Your task to perform on an android device: What's the weather going to be tomorrow? Image 0: 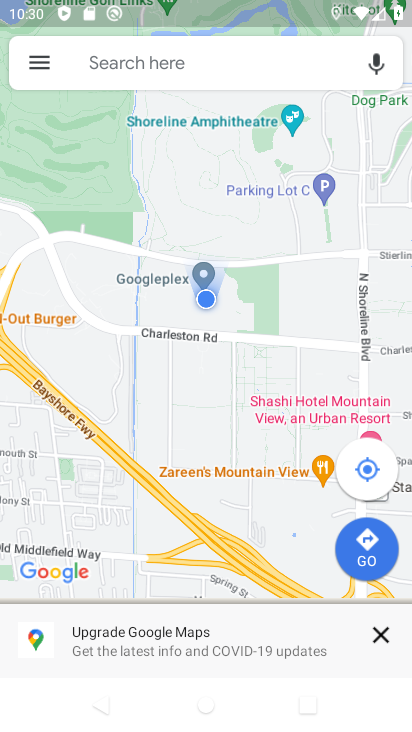
Step 0: press home button
Your task to perform on an android device: What's the weather going to be tomorrow? Image 1: 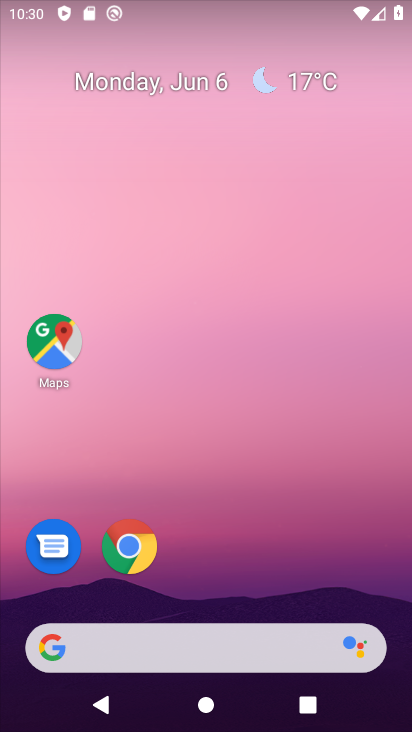
Step 1: click (325, 82)
Your task to perform on an android device: What's the weather going to be tomorrow? Image 2: 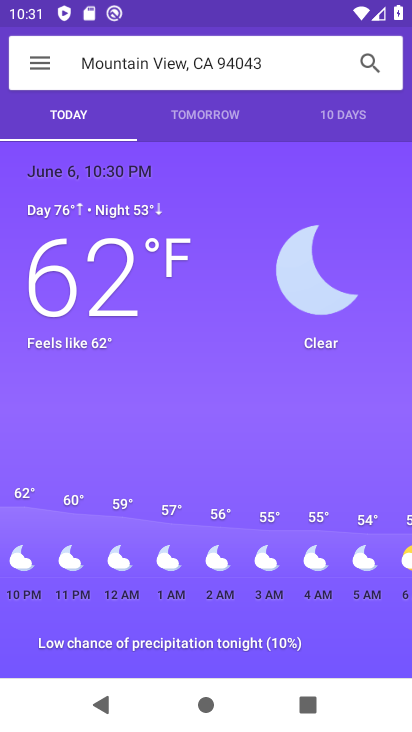
Step 2: click (233, 123)
Your task to perform on an android device: What's the weather going to be tomorrow? Image 3: 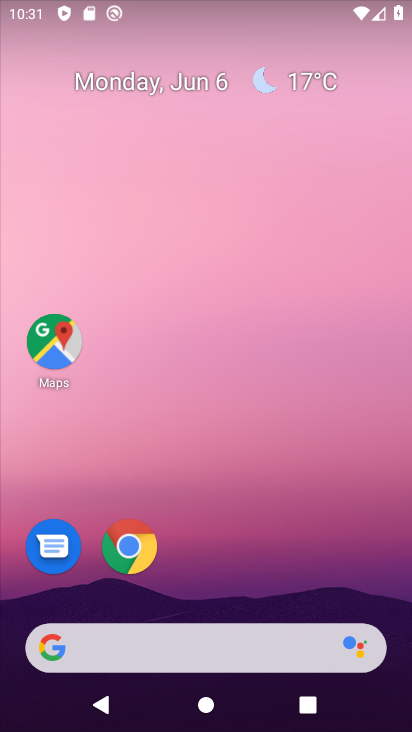
Step 3: click (306, 90)
Your task to perform on an android device: What's the weather going to be tomorrow? Image 4: 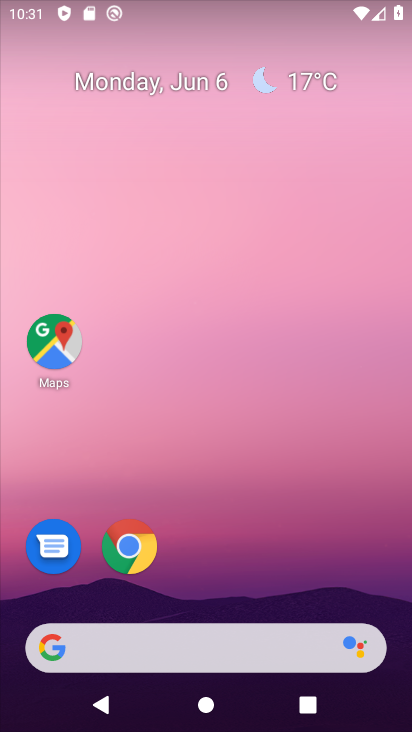
Step 4: click (313, 81)
Your task to perform on an android device: What's the weather going to be tomorrow? Image 5: 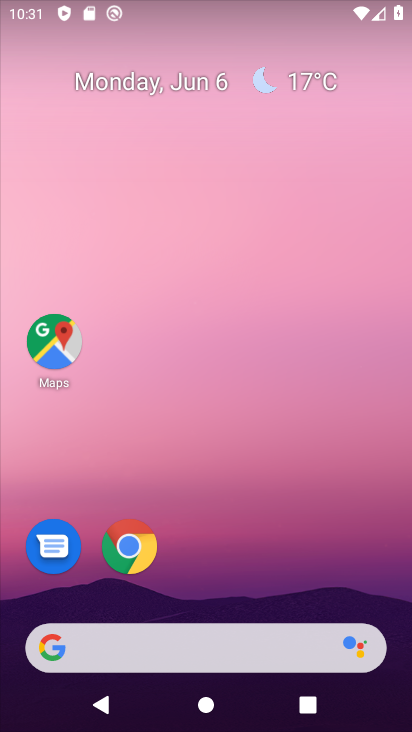
Step 5: click (315, 100)
Your task to perform on an android device: What's the weather going to be tomorrow? Image 6: 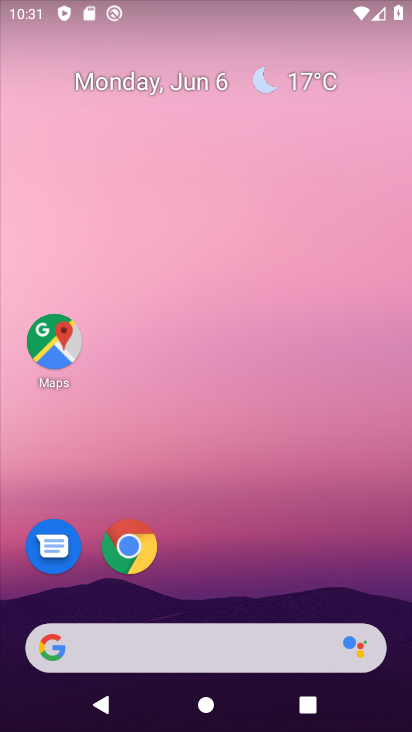
Step 6: drag from (294, 582) to (208, 119)
Your task to perform on an android device: What's the weather going to be tomorrow? Image 7: 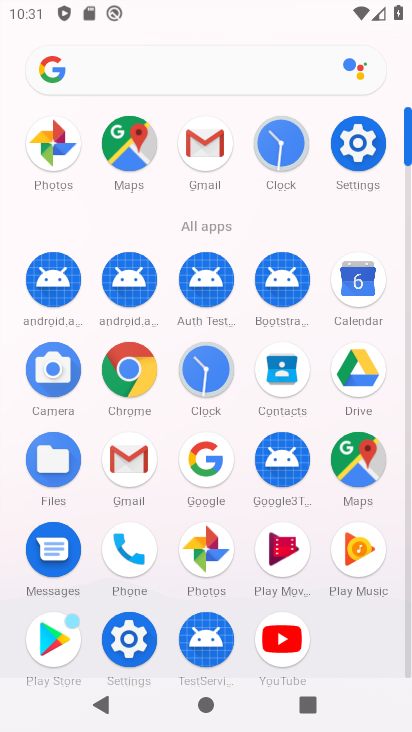
Step 7: press home button
Your task to perform on an android device: What's the weather going to be tomorrow? Image 8: 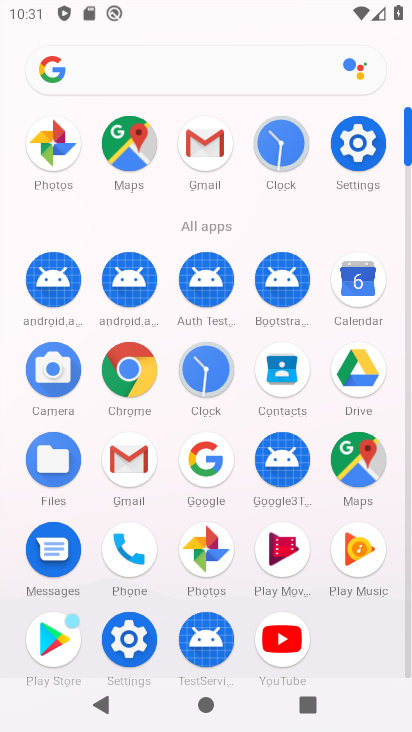
Step 8: press home button
Your task to perform on an android device: What's the weather going to be tomorrow? Image 9: 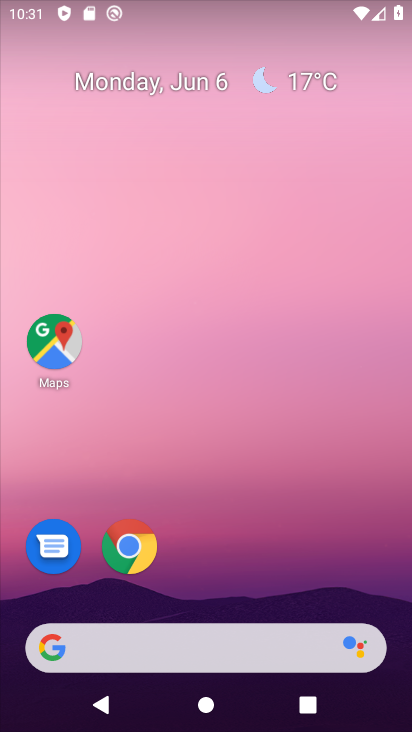
Step 9: click (314, 80)
Your task to perform on an android device: What's the weather going to be tomorrow? Image 10: 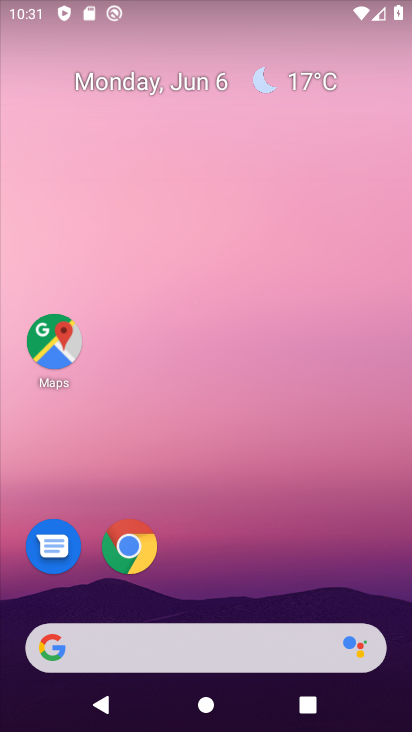
Step 10: click (312, 81)
Your task to perform on an android device: What's the weather going to be tomorrow? Image 11: 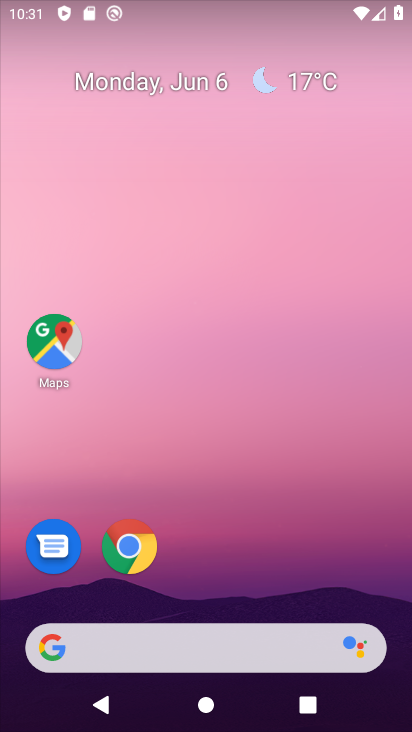
Step 11: click (312, 81)
Your task to perform on an android device: What's the weather going to be tomorrow? Image 12: 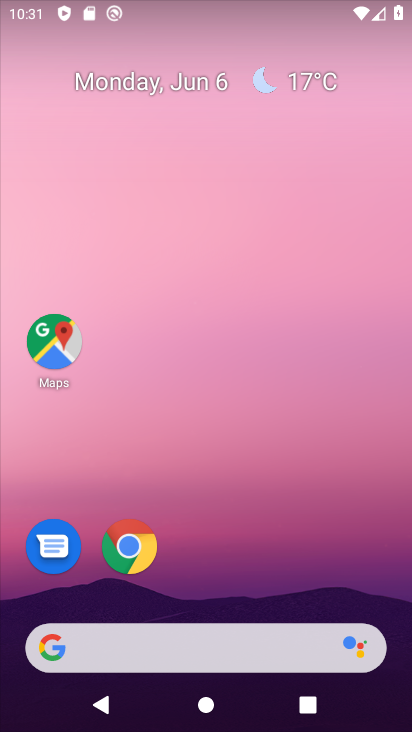
Step 12: click (312, 81)
Your task to perform on an android device: What's the weather going to be tomorrow? Image 13: 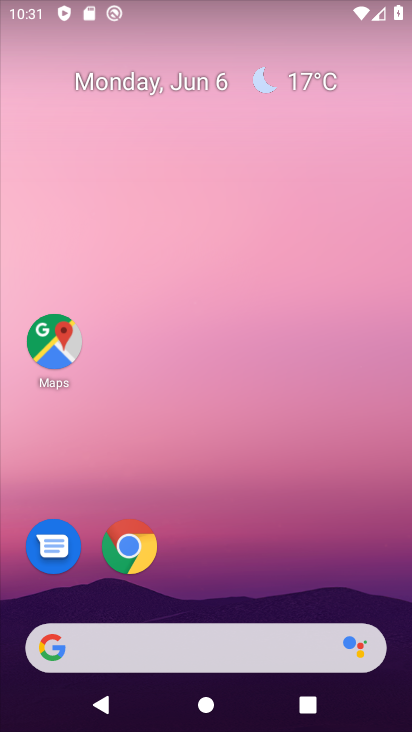
Step 13: click (312, 81)
Your task to perform on an android device: What's the weather going to be tomorrow? Image 14: 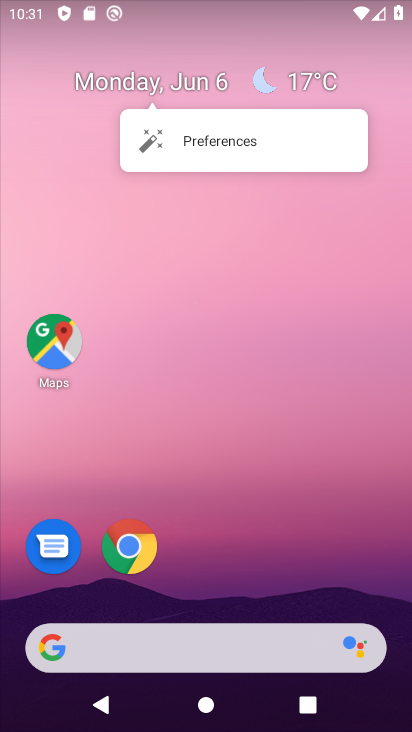
Step 14: click (336, 88)
Your task to perform on an android device: What's the weather going to be tomorrow? Image 15: 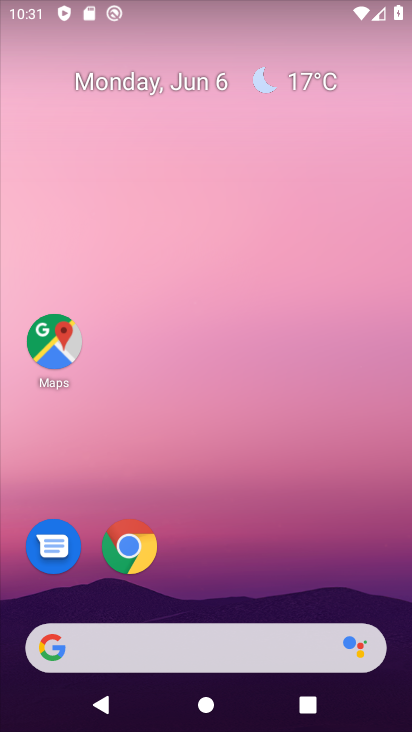
Step 15: click (287, 87)
Your task to perform on an android device: What's the weather going to be tomorrow? Image 16: 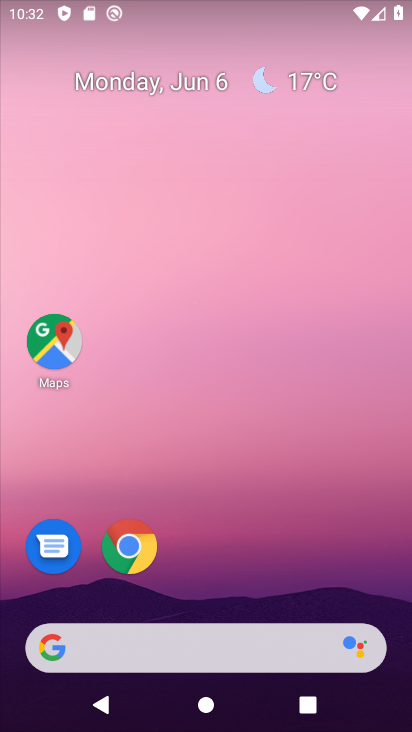
Step 16: click (269, 640)
Your task to perform on an android device: What's the weather going to be tomorrow? Image 17: 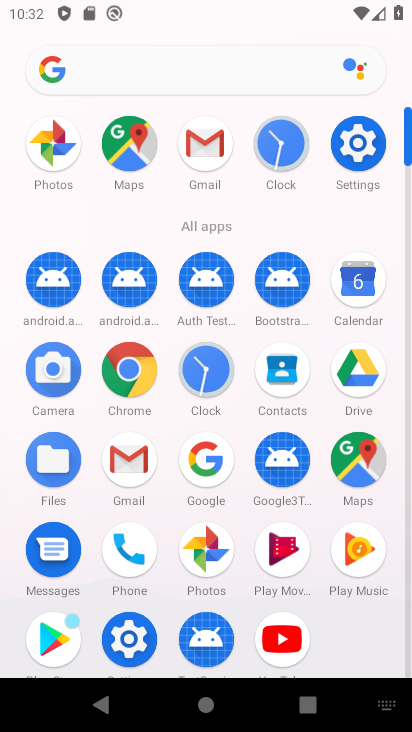
Step 17: click (132, 371)
Your task to perform on an android device: What's the weather going to be tomorrow? Image 18: 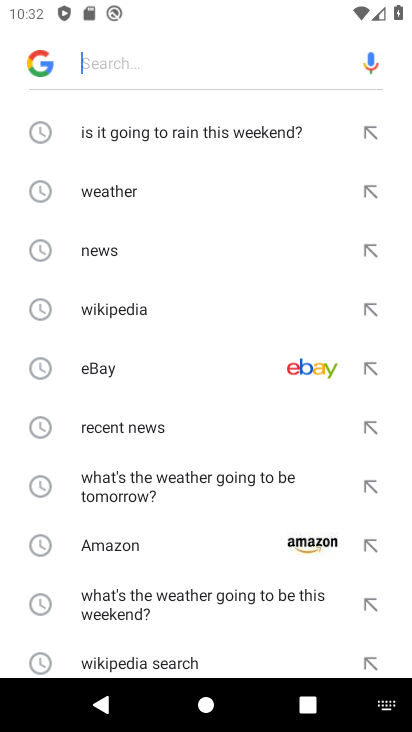
Step 18: type "weather"
Your task to perform on an android device: What's the weather going to be tomorrow? Image 19: 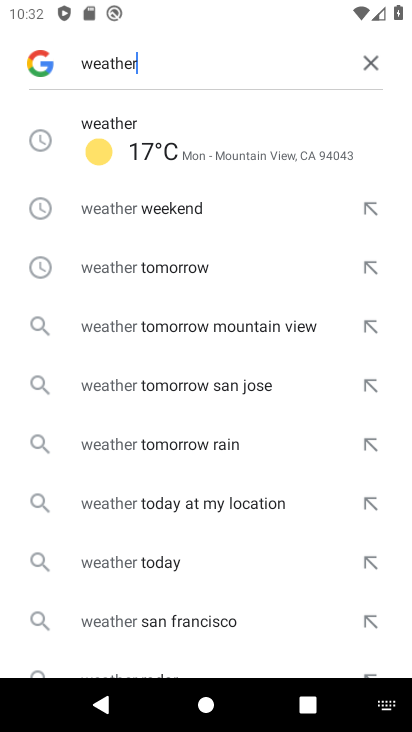
Step 19: click (182, 139)
Your task to perform on an android device: What's the weather going to be tomorrow? Image 20: 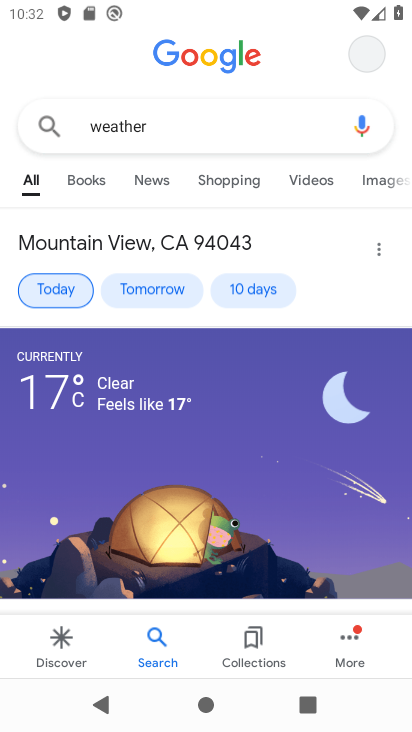
Step 20: drag from (194, 525) to (214, 25)
Your task to perform on an android device: What's the weather going to be tomorrow? Image 21: 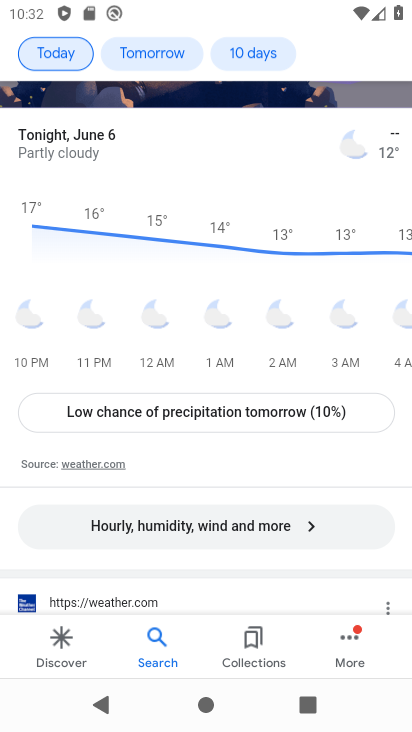
Step 21: drag from (192, 189) to (163, 568)
Your task to perform on an android device: What's the weather going to be tomorrow? Image 22: 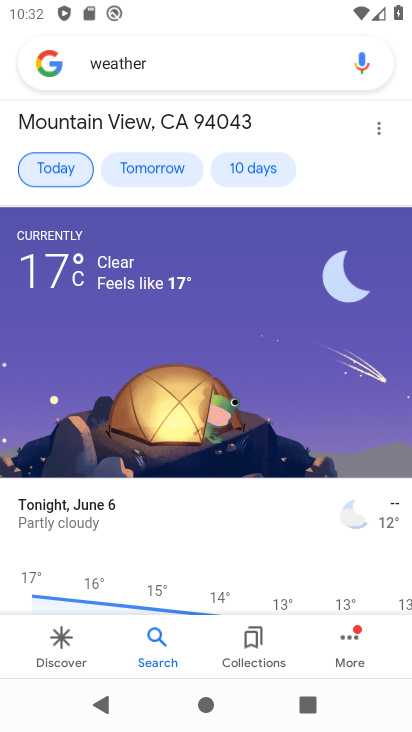
Step 22: click (133, 169)
Your task to perform on an android device: What's the weather going to be tomorrow? Image 23: 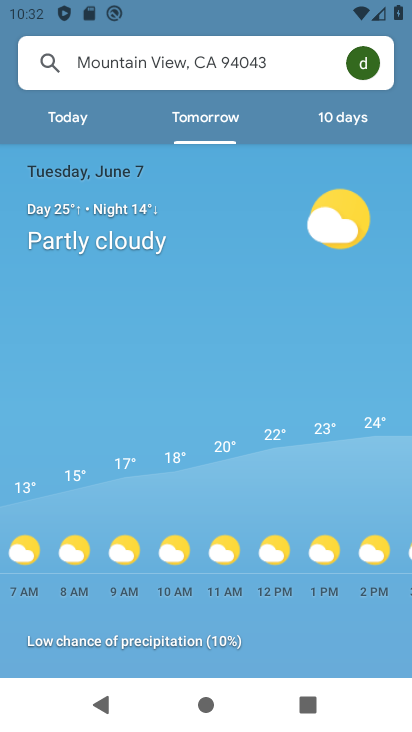
Step 23: task complete